Your task to perform on an android device: Go to Amazon Image 0: 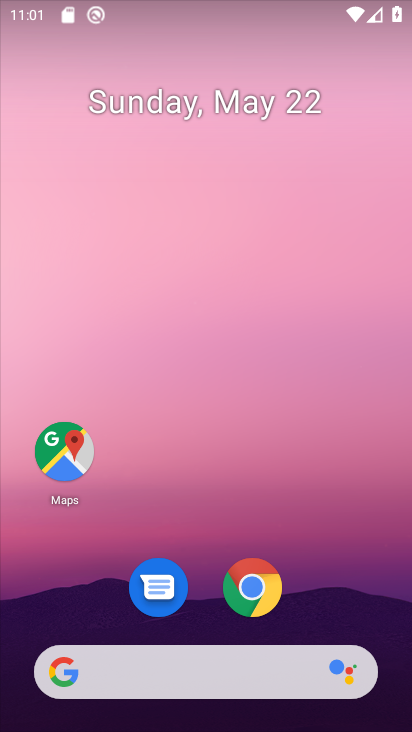
Step 0: drag from (360, 582) to (411, 20)
Your task to perform on an android device: Go to Amazon Image 1: 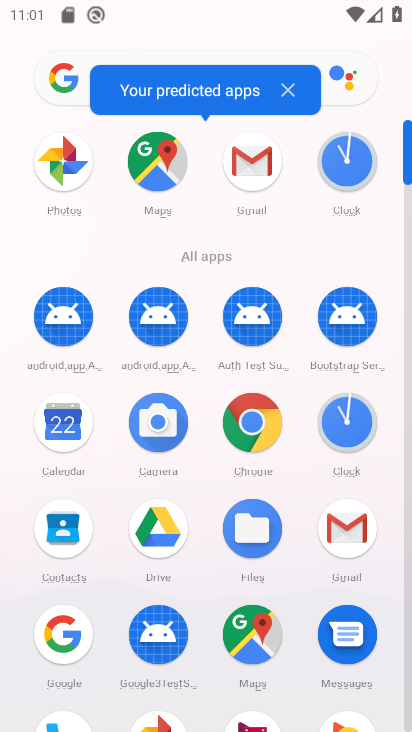
Step 1: drag from (184, 585) to (253, 302)
Your task to perform on an android device: Go to Amazon Image 2: 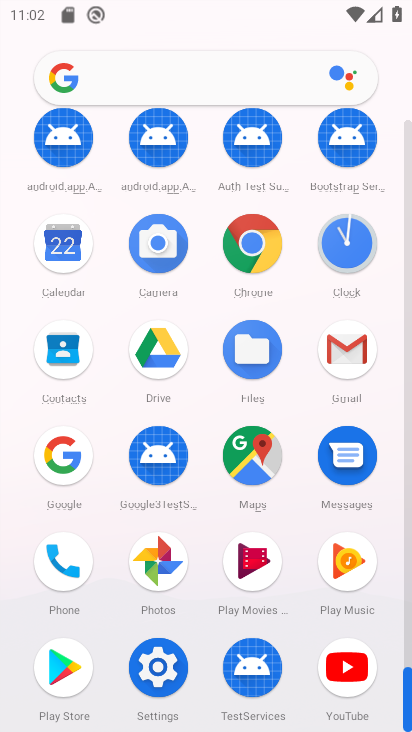
Step 2: drag from (229, 637) to (292, 305)
Your task to perform on an android device: Go to Amazon Image 3: 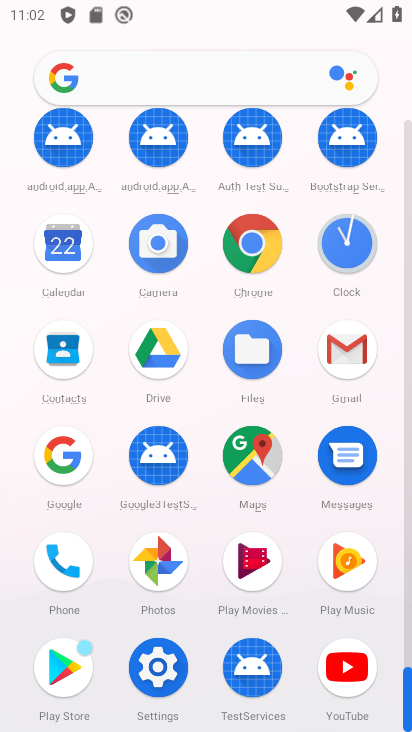
Step 3: drag from (260, 215) to (153, 536)
Your task to perform on an android device: Go to Amazon Image 4: 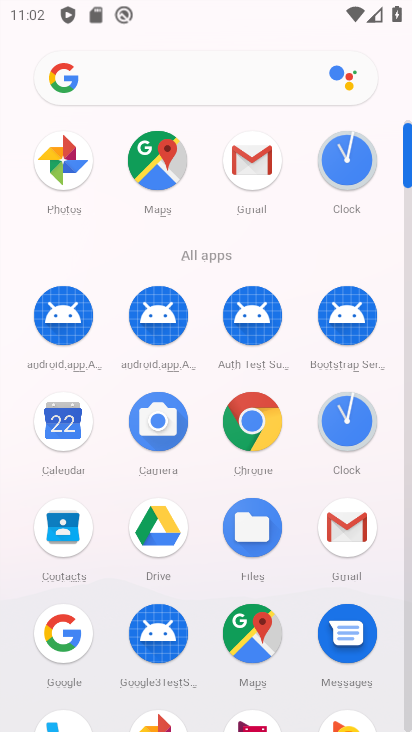
Step 4: drag from (158, 586) to (312, 287)
Your task to perform on an android device: Go to Amazon Image 5: 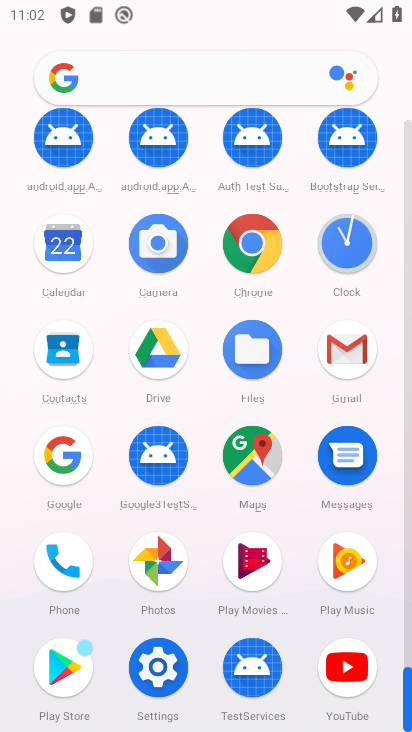
Step 5: click (255, 220)
Your task to perform on an android device: Go to Amazon Image 6: 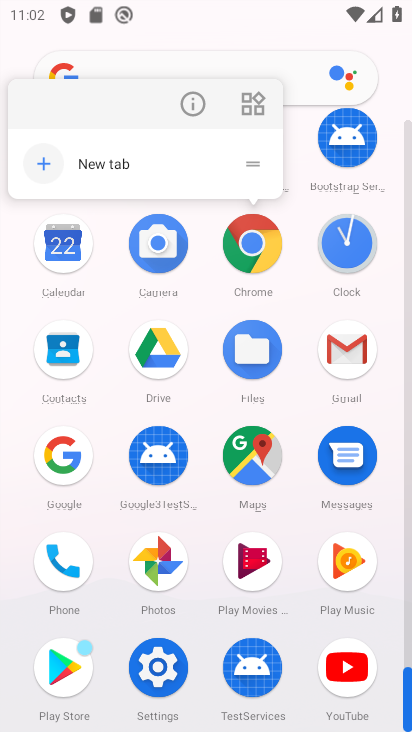
Step 6: click (279, 247)
Your task to perform on an android device: Go to Amazon Image 7: 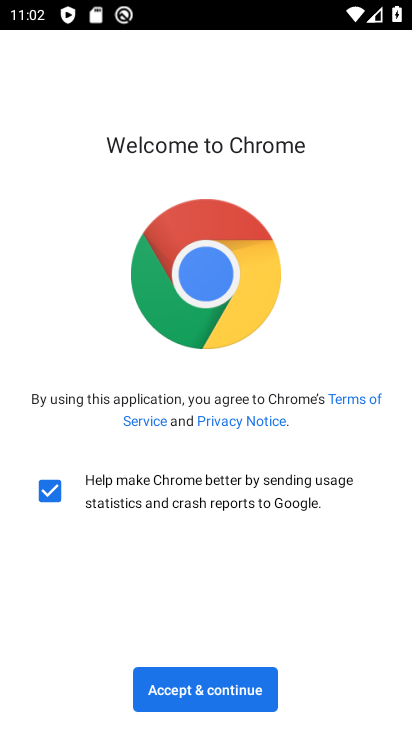
Step 7: click (209, 697)
Your task to perform on an android device: Go to Amazon Image 8: 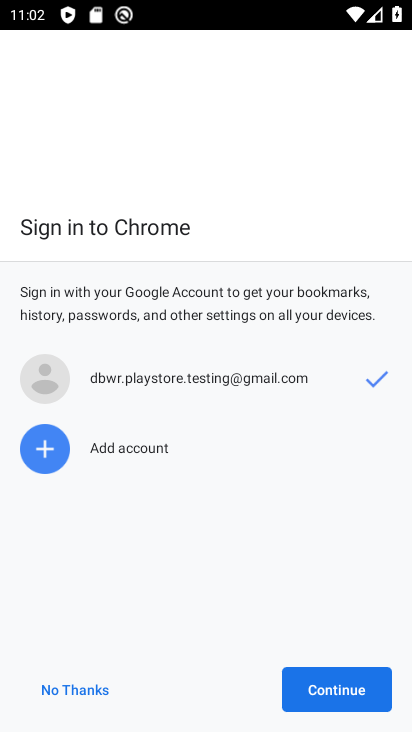
Step 8: click (330, 720)
Your task to perform on an android device: Go to Amazon Image 9: 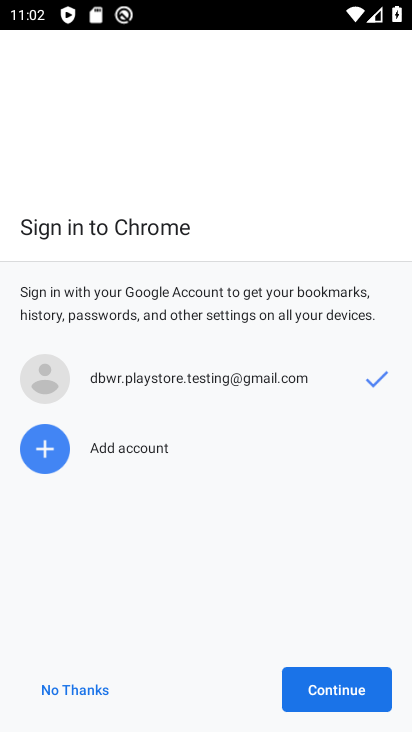
Step 9: click (333, 690)
Your task to perform on an android device: Go to Amazon Image 10: 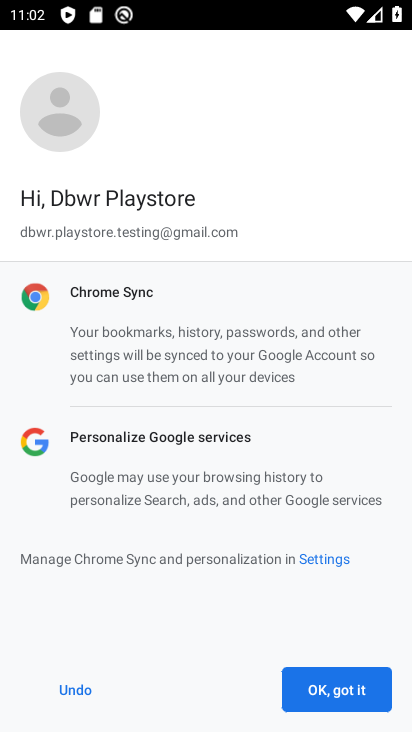
Step 10: click (353, 692)
Your task to perform on an android device: Go to Amazon Image 11: 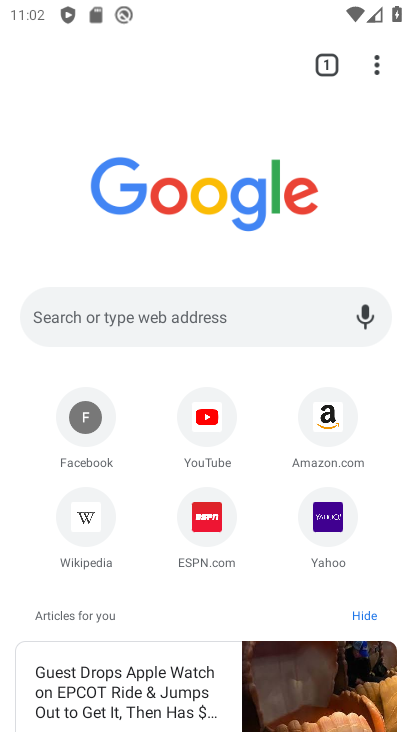
Step 11: click (350, 473)
Your task to perform on an android device: Go to Amazon Image 12: 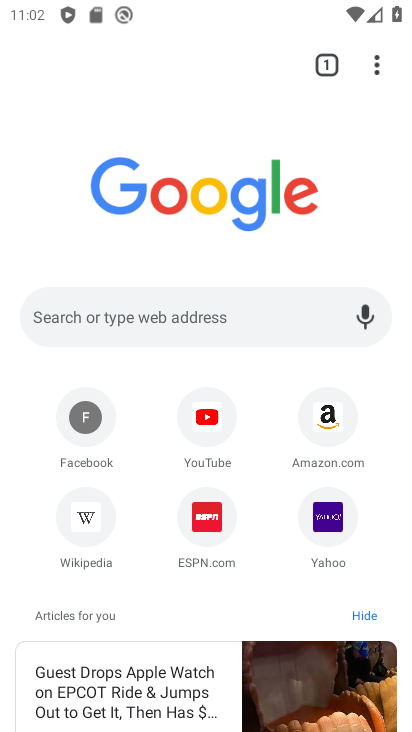
Step 12: click (334, 408)
Your task to perform on an android device: Go to Amazon Image 13: 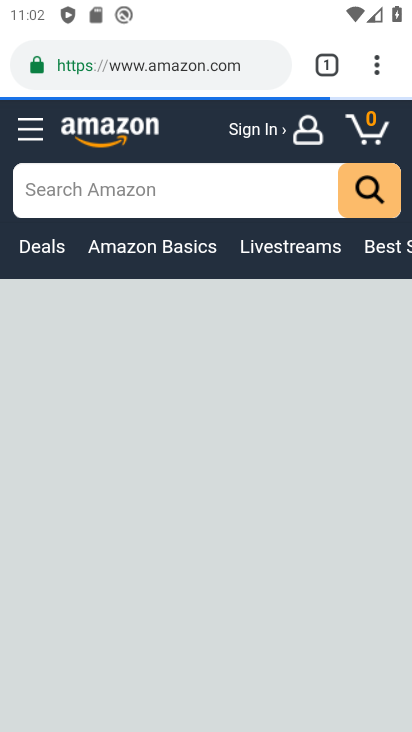
Step 13: task complete